Your task to perform on an android device: Open Google Maps Image 0: 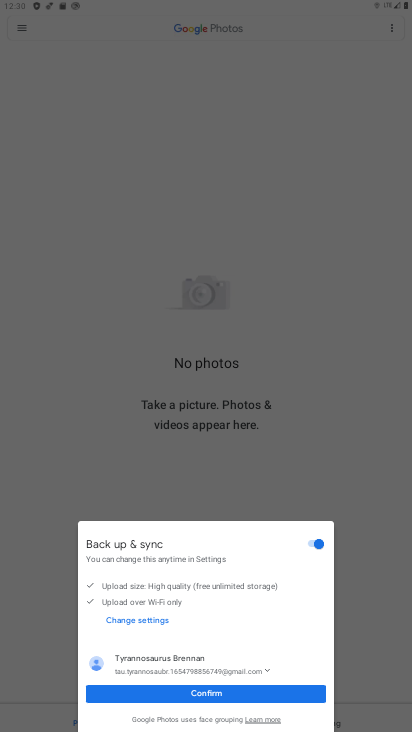
Step 0: press home button
Your task to perform on an android device: Open Google Maps Image 1: 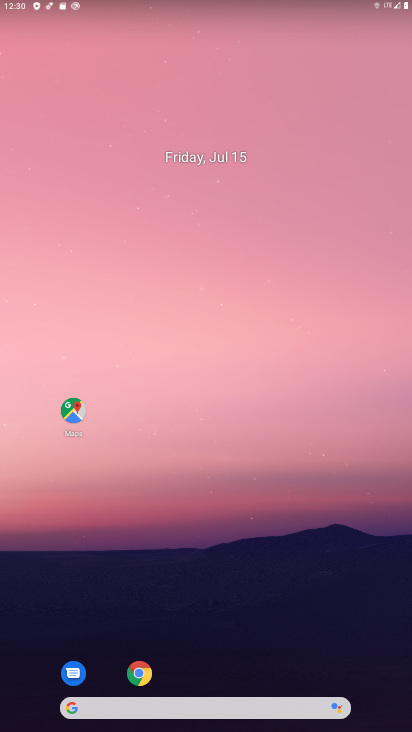
Step 1: click (67, 411)
Your task to perform on an android device: Open Google Maps Image 2: 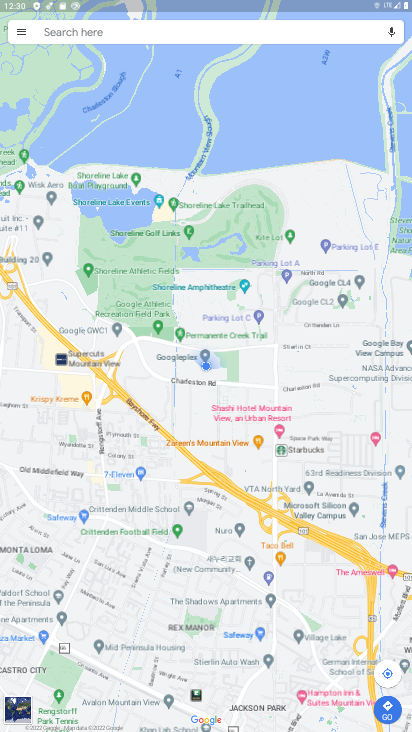
Step 2: task complete